Your task to perform on an android device: change the clock display to show seconds Image 0: 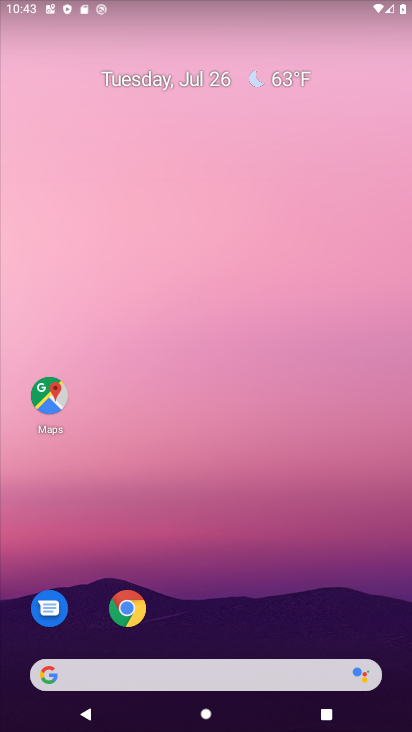
Step 0: press home button
Your task to perform on an android device: change the clock display to show seconds Image 1: 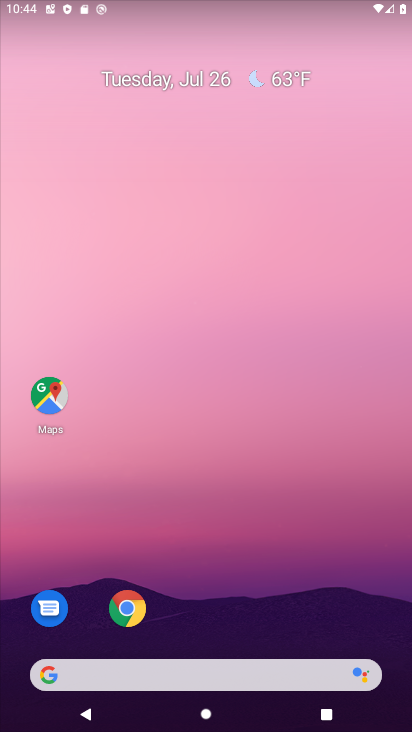
Step 1: drag from (294, 640) to (303, 220)
Your task to perform on an android device: change the clock display to show seconds Image 2: 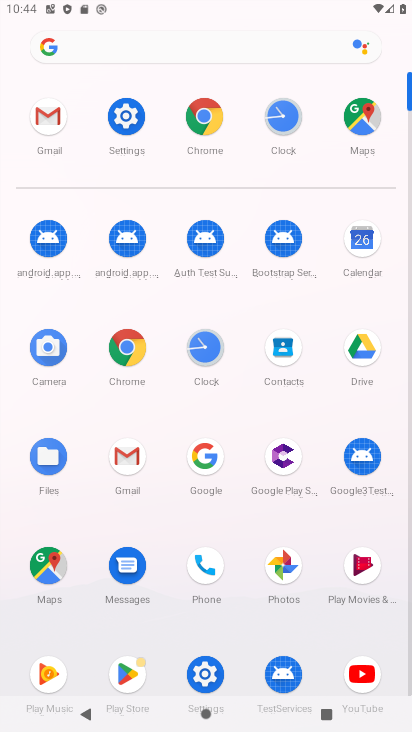
Step 2: click (286, 126)
Your task to perform on an android device: change the clock display to show seconds Image 3: 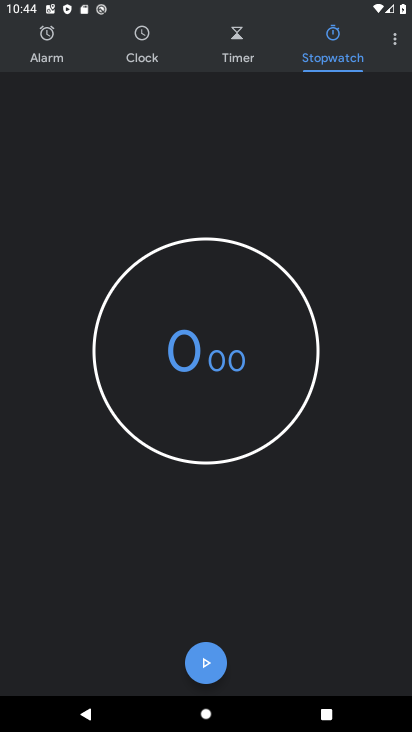
Step 3: click (405, 37)
Your task to perform on an android device: change the clock display to show seconds Image 4: 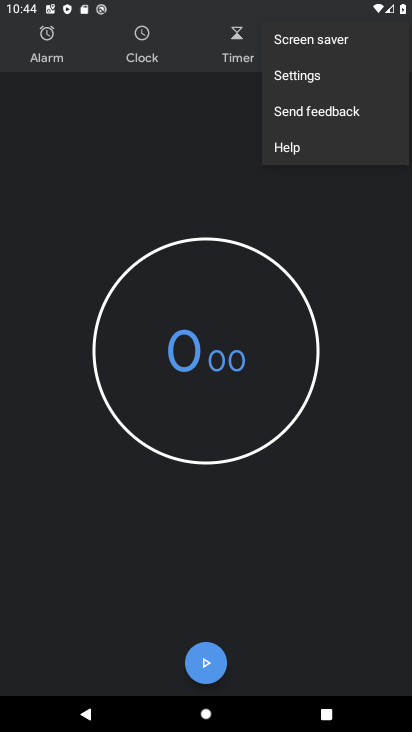
Step 4: click (301, 77)
Your task to perform on an android device: change the clock display to show seconds Image 5: 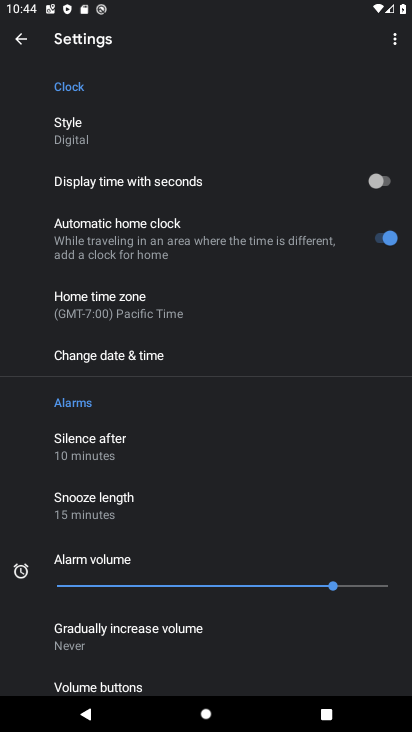
Step 5: click (383, 188)
Your task to perform on an android device: change the clock display to show seconds Image 6: 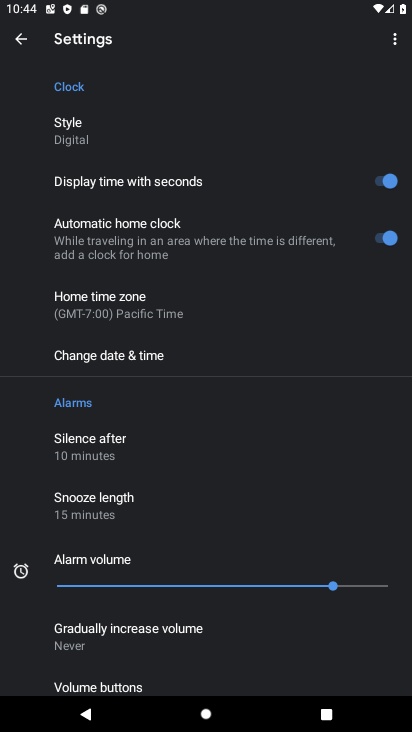
Step 6: task complete